Your task to perform on an android device: move an email to a new category in the gmail app Image 0: 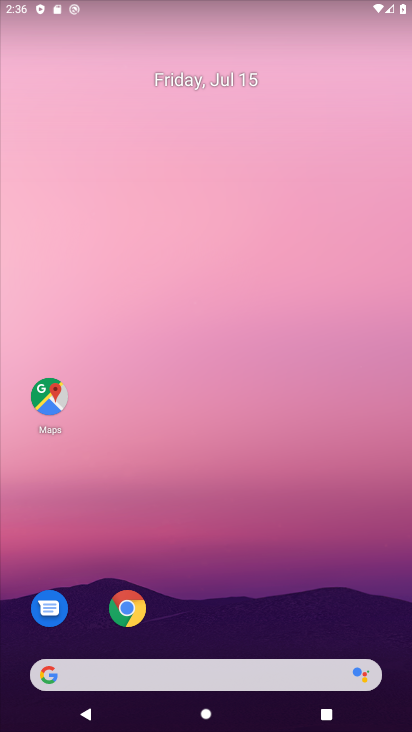
Step 0: drag from (184, 102) to (185, 27)
Your task to perform on an android device: move an email to a new category in the gmail app Image 1: 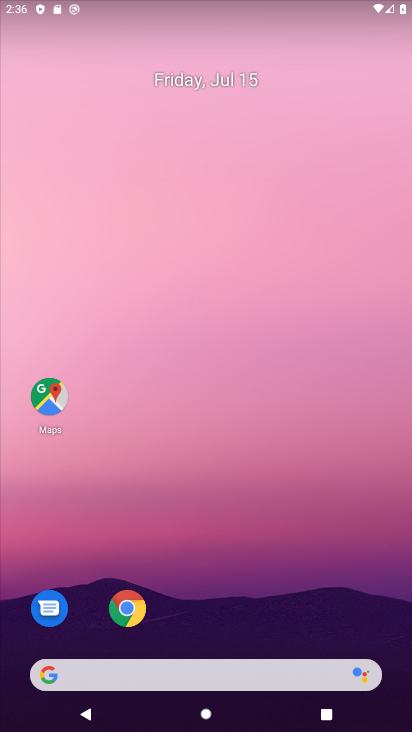
Step 1: drag from (209, 564) to (305, 100)
Your task to perform on an android device: move an email to a new category in the gmail app Image 2: 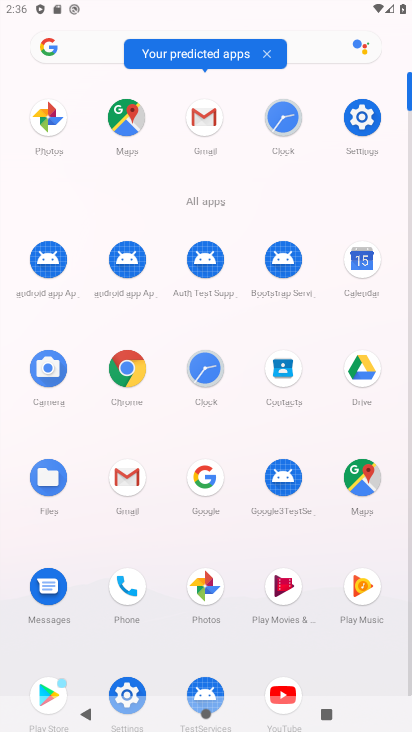
Step 2: click (203, 121)
Your task to perform on an android device: move an email to a new category in the gmail app Image 3: 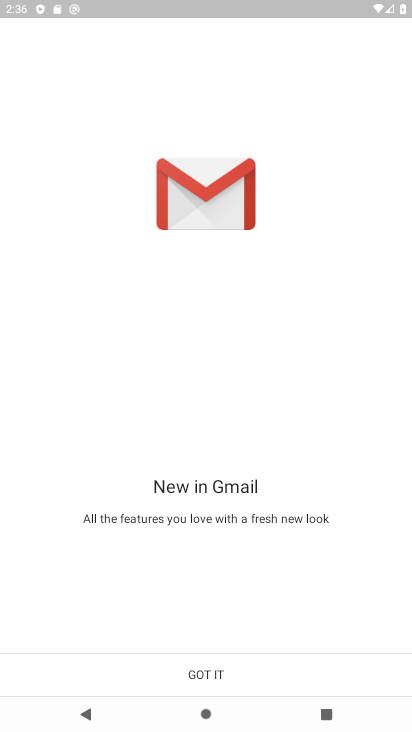
Step 3: click (198, 666)
Your task to perform on an android device: move an email to a new category in the gmail app Image 4: 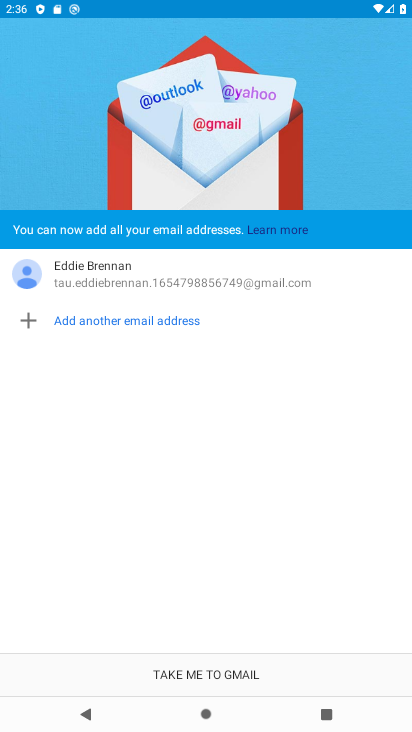
Step 4: click (198, 666)
Your task to perform on an android device: move an email to a new category in the gmail app Image 5: 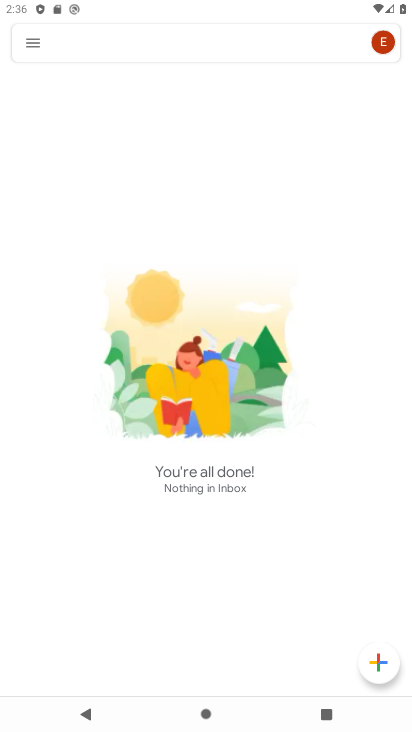
Step 5: click (31, 47)
Your task to perform on an android device: move an email to a new category in the gmail app Image 6: 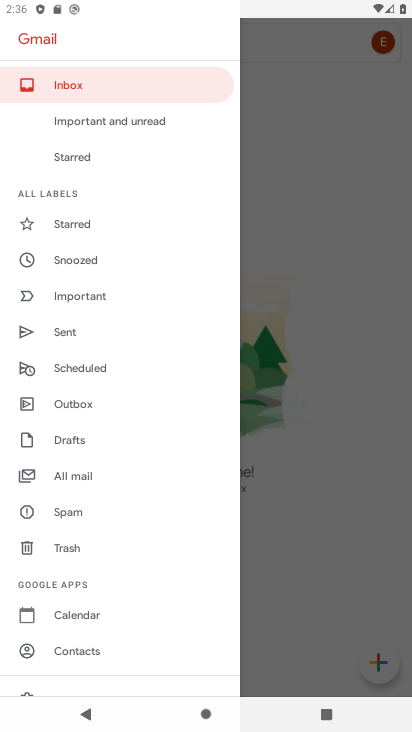
Step 6: click (66, 481)
Your task to perform on an android device: move an email to a new category in the gmail app Image 7: 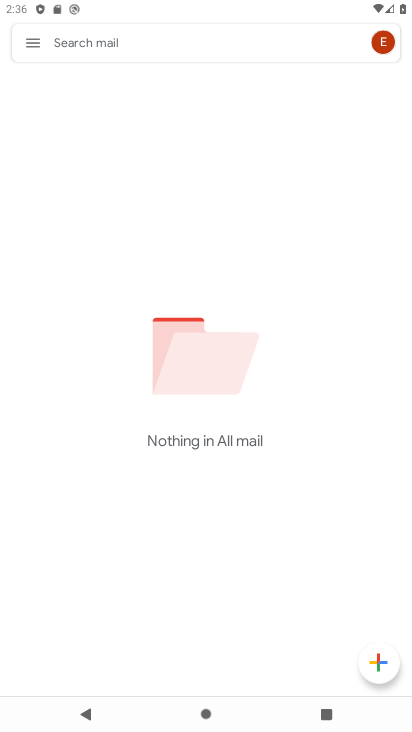
Step 7: task complete